Your task to perform on an android device: Set the phone to "Do not disturb". Image 0: 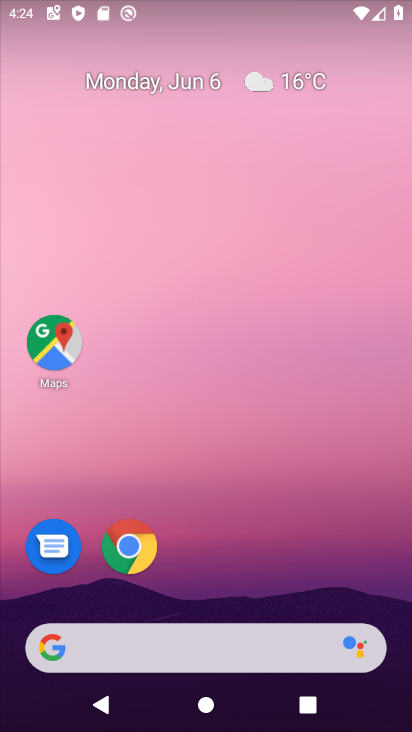
Step 0: drag from (239, 607) to (212, 38)
Your task to perform on an android device: Set the phone to "Do not disturb". Image 1: 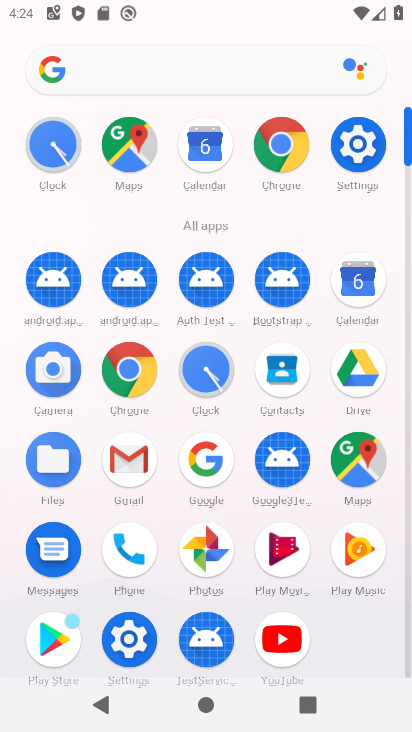
Step 1: click (371, 157)
Your task to perform on an android device: Set the phone to "Do not disturb". Image 2: 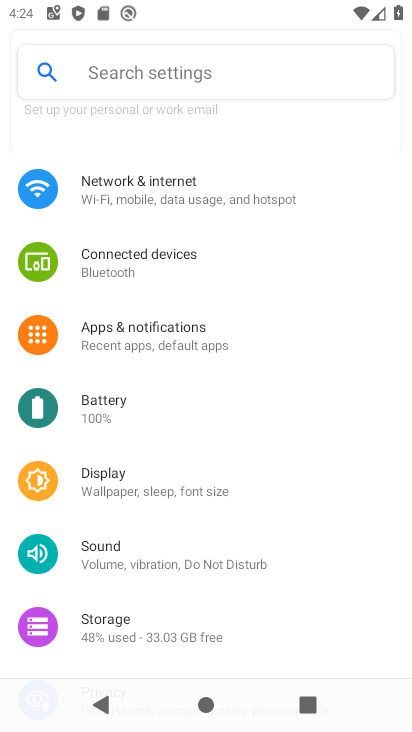
Step 2: drag from (248, 11) to (156, 726)
Your task to perform on an android device: Set the phone to "Do not disturb". Image 3: 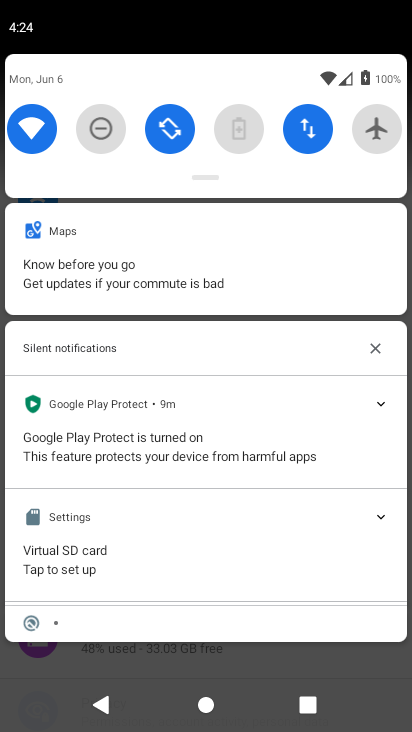
Step 3: click (96, 134)
Your task to perform on an android device: Set the phone to "Do not disturb". Image 4: 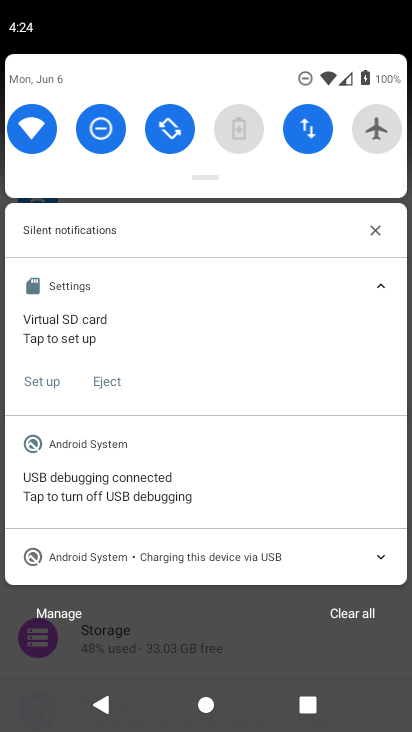
Step 4: task complete